Your task to perform on an android device: Open Chrome and go to settings Image 0: 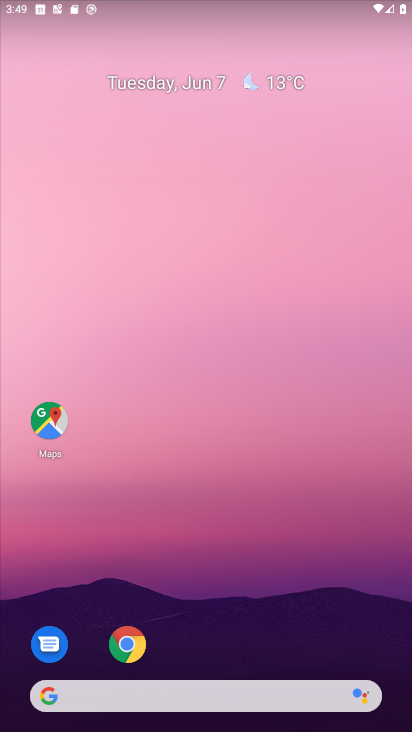
Step 0: drag from (320, 564) to (363, 194)
Your task to perform on an android device: Open Chrome and go to settings Image 1: 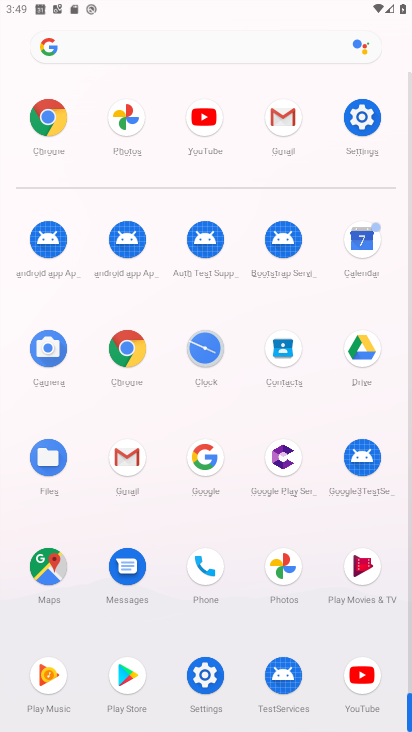
Step 1: click (129, 350)
Your task to perform on an android device: Open Chrome and go to settings Image 2: 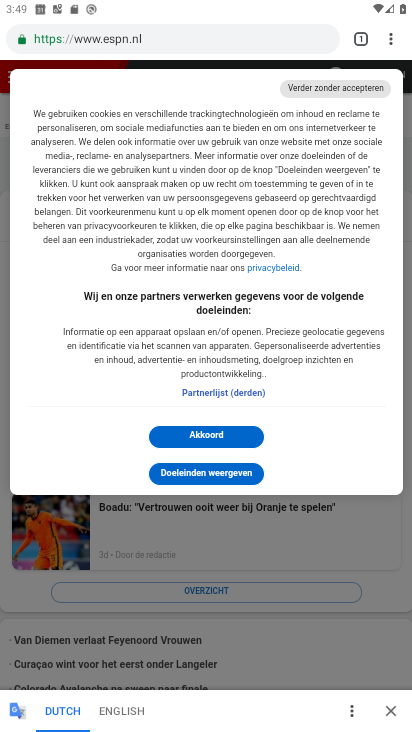
Step 2: click (393, 36)
Your task to perform on an android device: Open Chrome and go to settings Image 3: 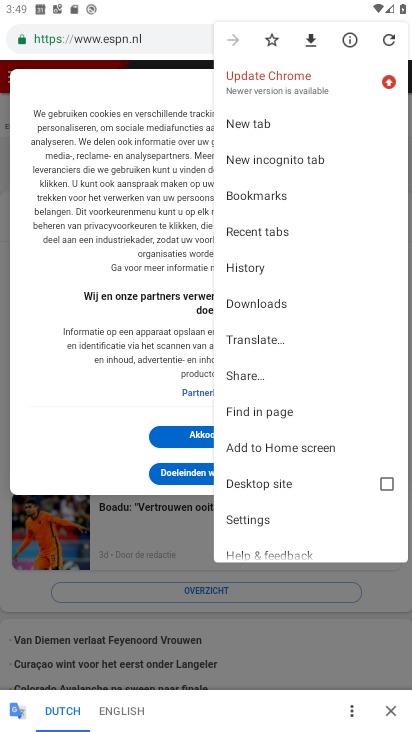
Step 3: click (278, 519)
Your task to perform on an android device: Open Chrome and go to settings Image 4: 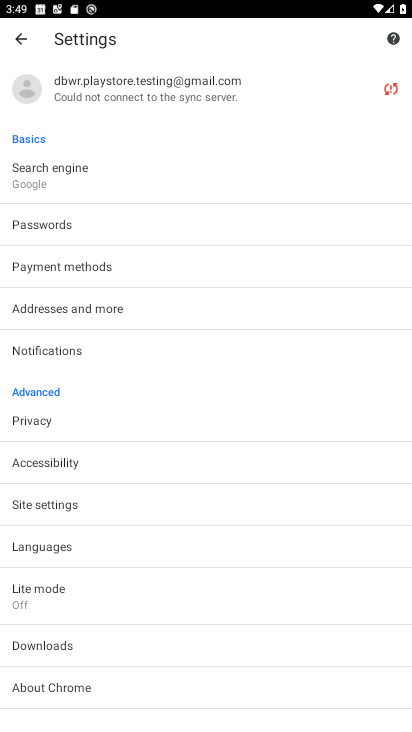
Step 4: task complete